Your task to perform on an android device: Open Maps and search for coffee Image 0: 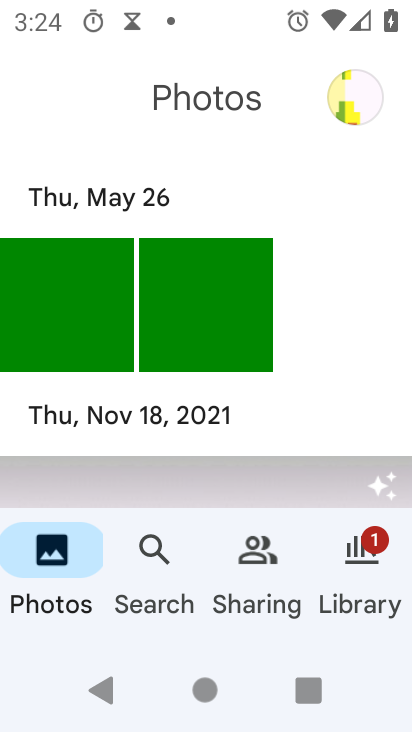
Step 0: press home button
Your task to perform on an android device: Open Maps and search for coffee Image 1: 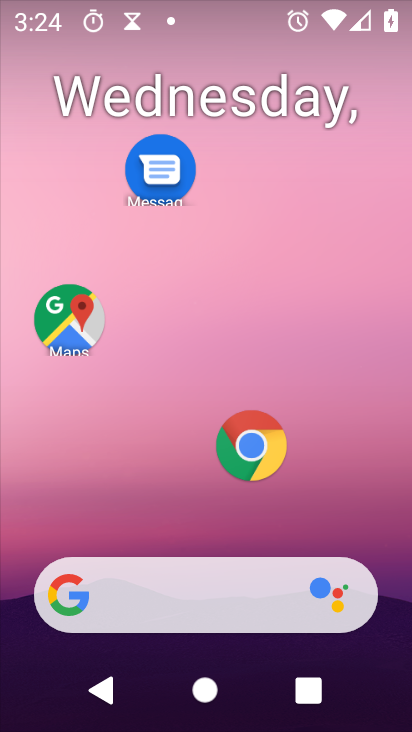
Step 1: click (64, 308)
Your task to perform on an android device: Open Maps and search for coffee Image 2: 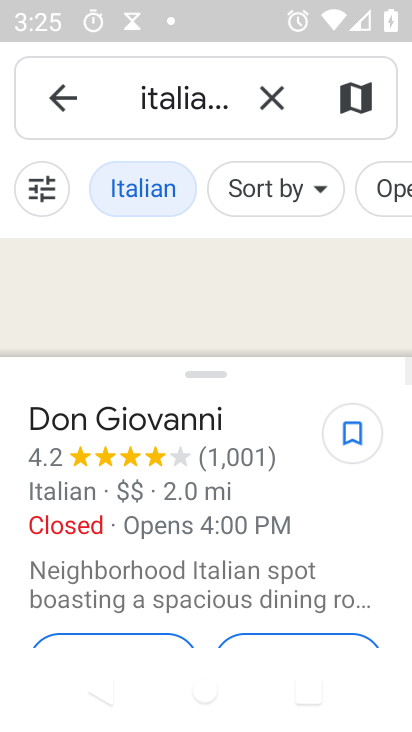
Step 2: click (277, 99)
Your task to perform on an android device: Open Maps and search for coffee Image 3: 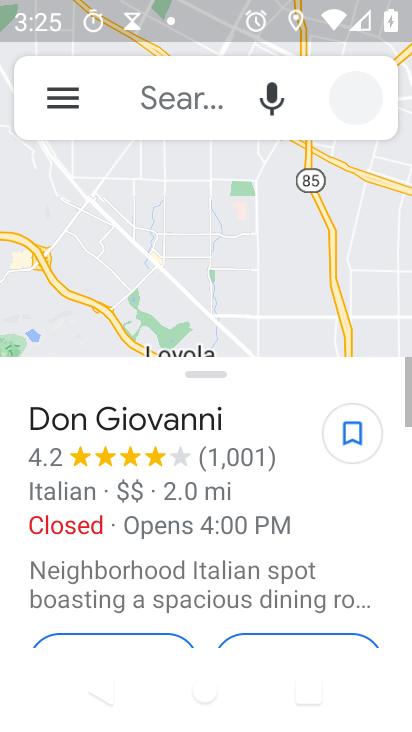
Step 3: click (146, 93)
Your task to perform on an android device: Open Maps and search for coffee Image 4: 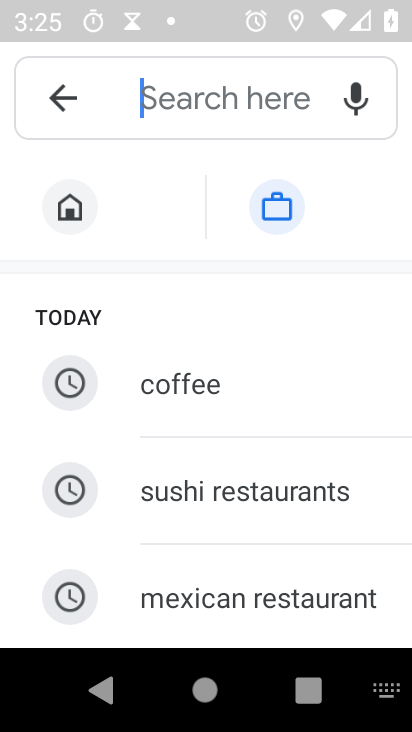
Step 4: click (140, 402)
Your task to perform on an android device: Open Maps and search for coffee Image 5: 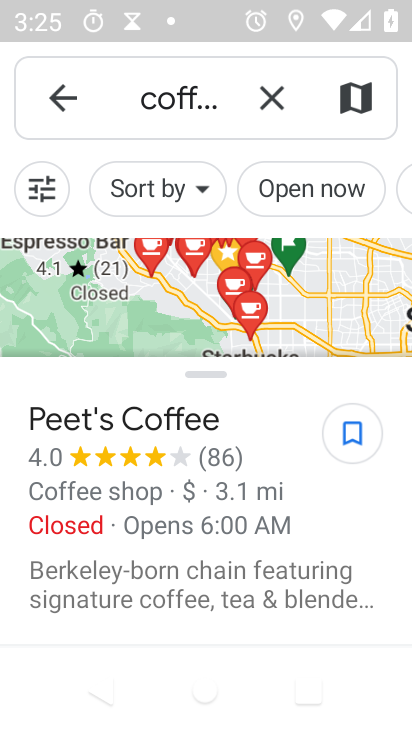
Step 5: task complete